Your task to perform on an android device: Do I have any events tomorrow? Image 0: 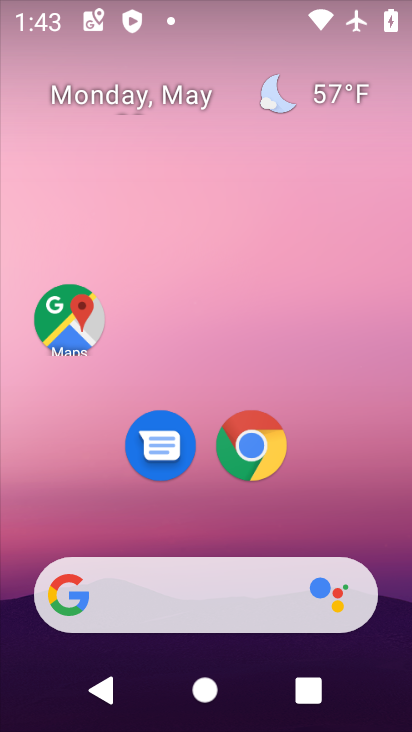
Step 0: drag from (193, 517) to (197, 88)
Your task to perform on an android device: Do I have any events tomorrow? Image 1: 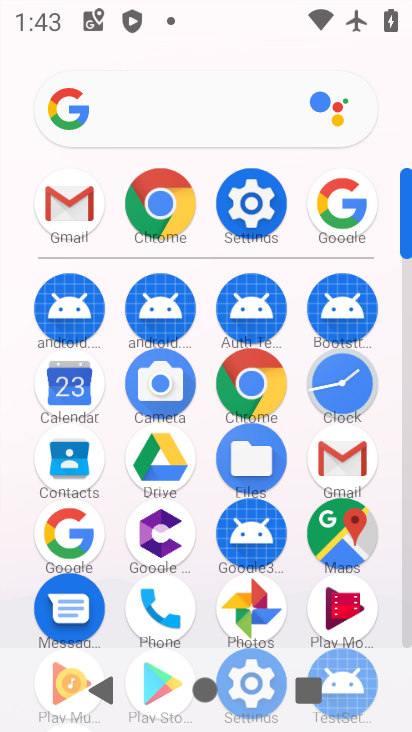
Step 1: click (337, 201)
Your task to perform on an android device: Do I have any events tomorrow? Image 2: 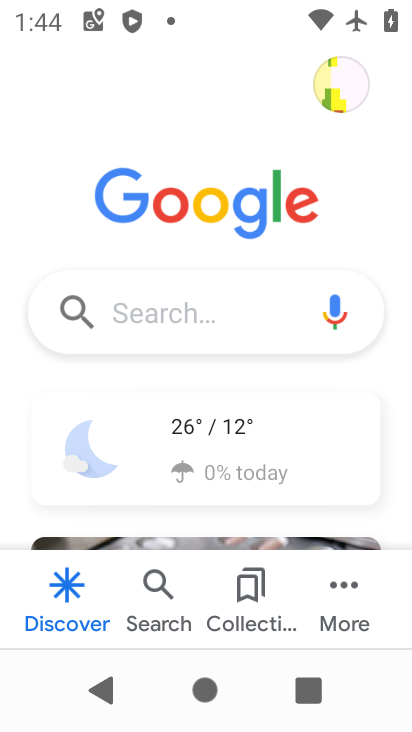
Step 2: task complete